Your task to perform on an android device: empty trash in the gmail app Image 0: 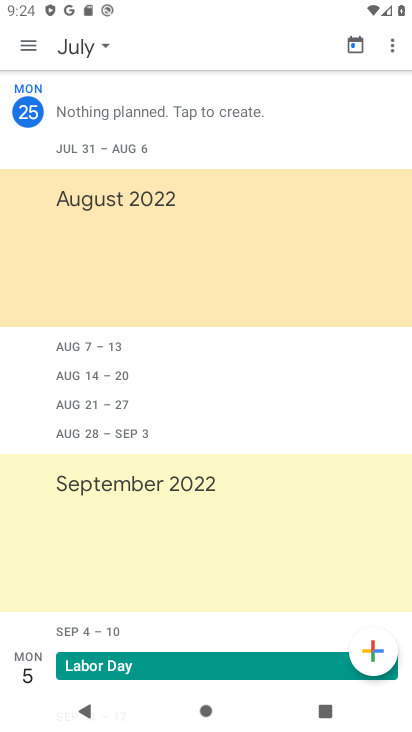
Step 0: press home button
Your task to perform on an android device: empty trash in the gmail app Image 1: 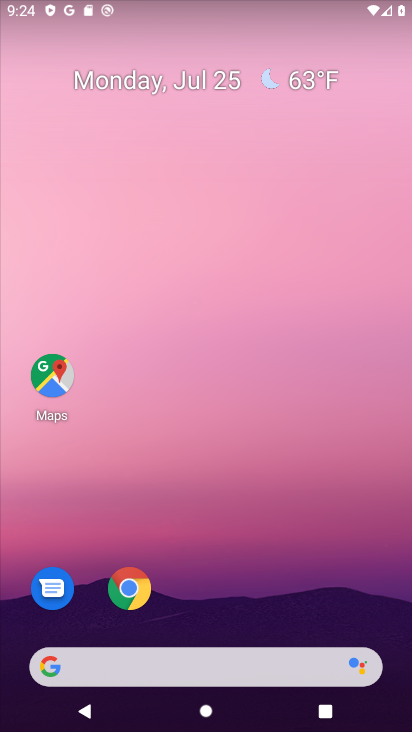
Step 1: drag from (305, 509) to (344, 108)
Your task to perform on an android device: empty trash in the gmail app Image 2: 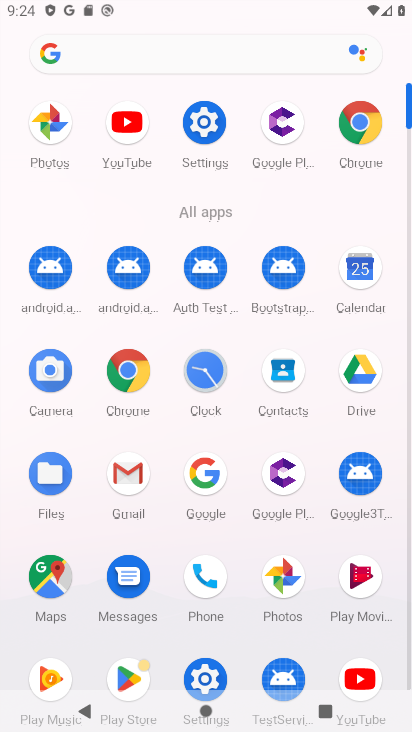
Step 2: click (124, 473)
Your task to perform on an android device: empty trash in the gmail app Image 3: 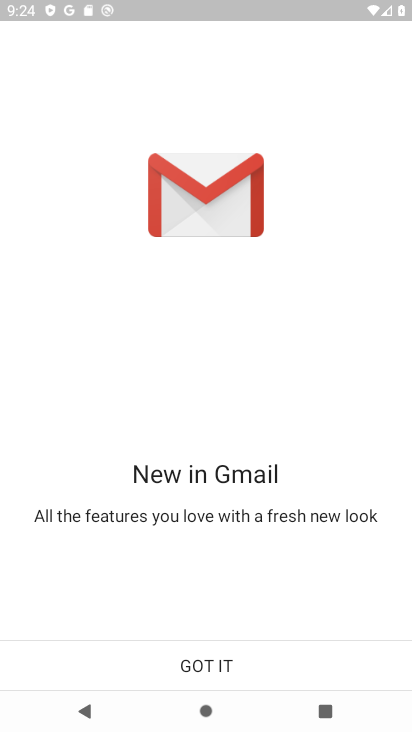
Step 3: click (218, 656)
Your task to perform on an android device: empty trash in the gmail app Image 4: 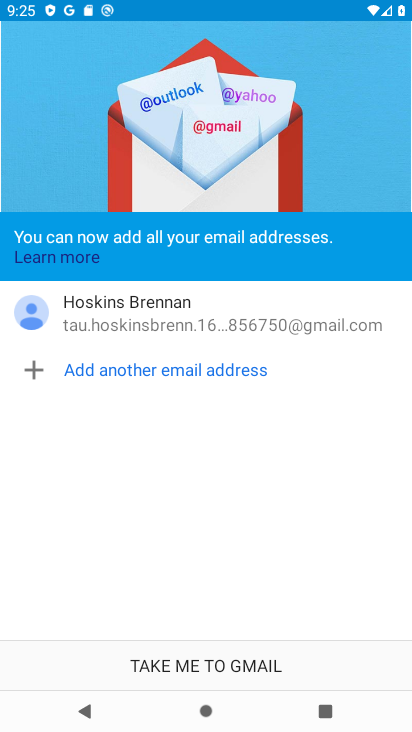
Step 4: click (218, 656)
Your task to perform on an android device: empty trash in the gmail app Image 5: 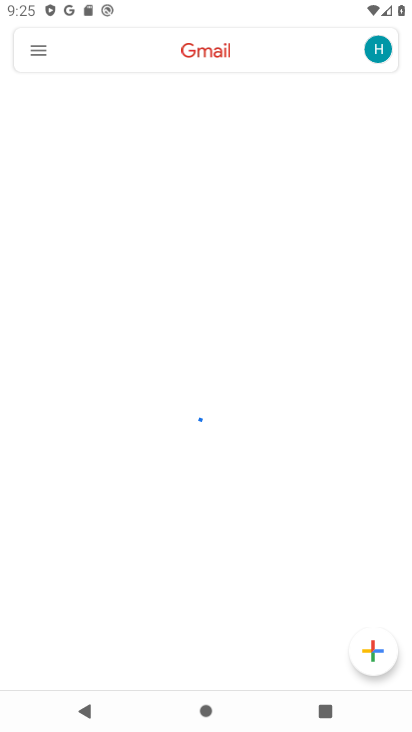
Step 5: click (34, 39)
Your task to perform on an android device: empty trash in the gmail app Image 6: 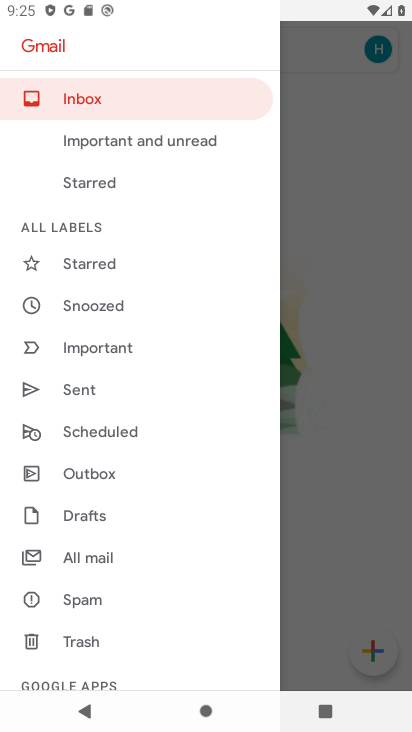
Step 6: click (76, 640)
Your task to perform on an android device: empty trash in the gmail app Image 7: 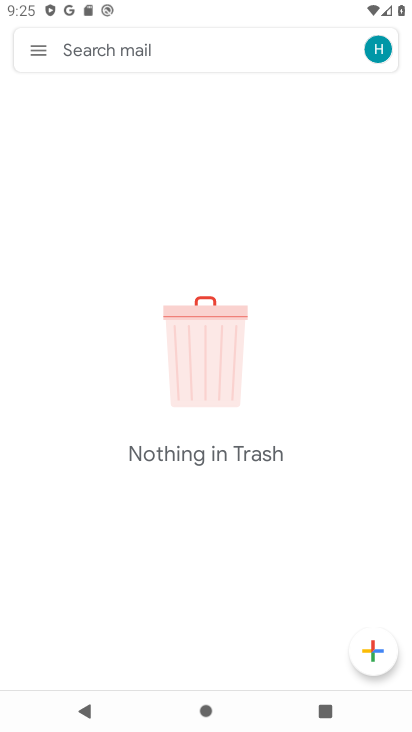
Step 7: task complete